Your task to perform on an android device: turn on wifi Image 0: 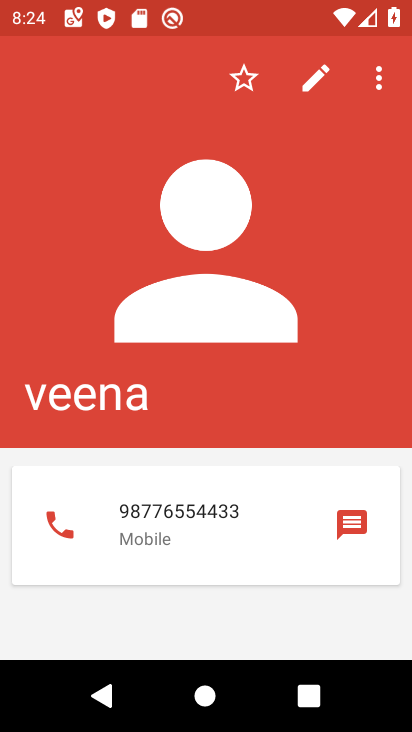
Step 0: press home button
Your task to perform on an android device: turn on wifi Image 1: 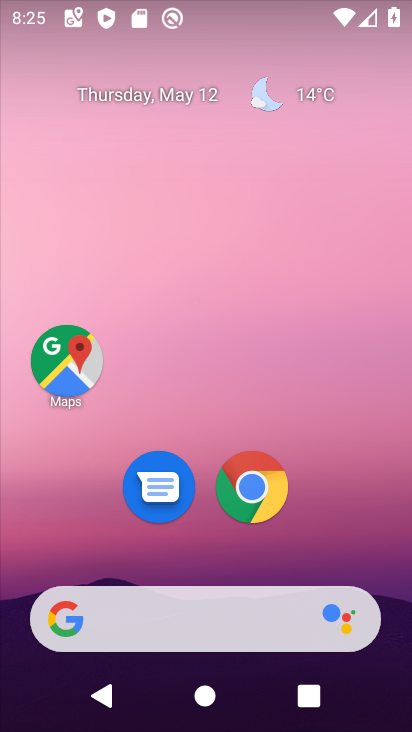
Step 1: drag from (374, 577) to (297, 28)
Your task to perform on an android device: turn on wifi Image 2: 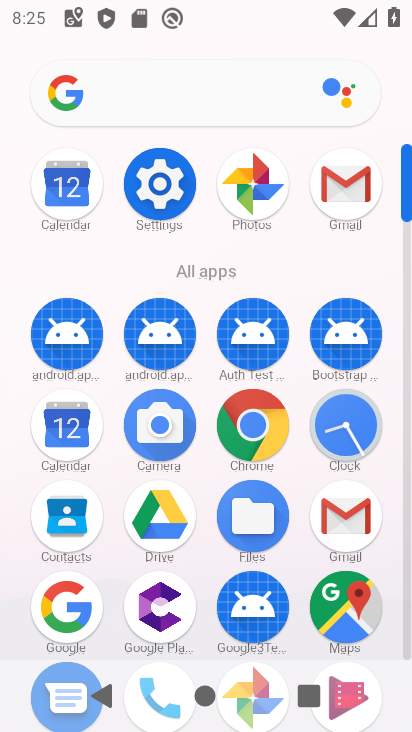
Step 2: click (160, 182)
Your task to perform on an android device: turn on wifi Image 3: 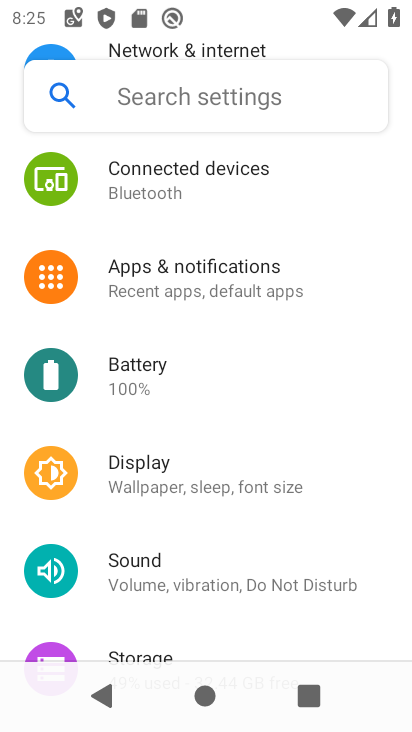
Step 3: drag from (392, 187) to (363, 563)
Your task to perform on an android device: turn on wifi Image 4: 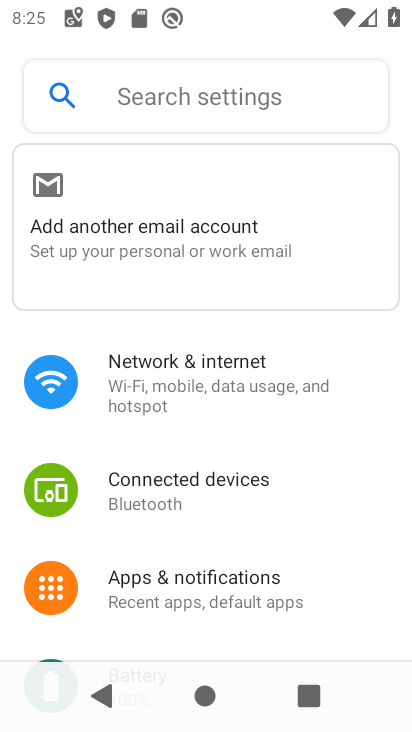
Step 4: click (158, 388)
Your task to perform on an android device: turn on wifi Image 5: 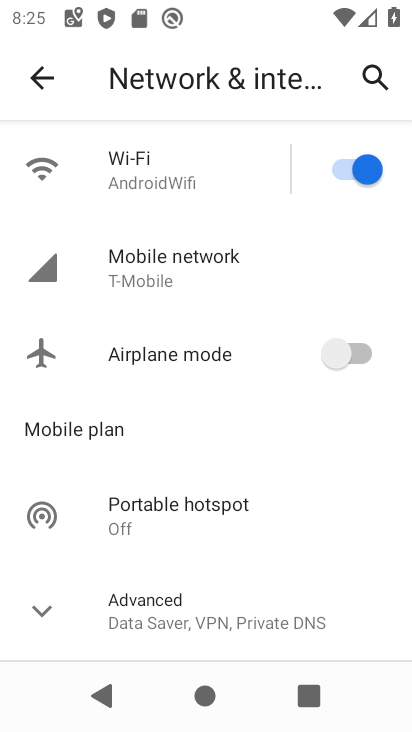
Step 5: task complete